Your task to perform on an android device: turn on translation in the chrome app Image 0: 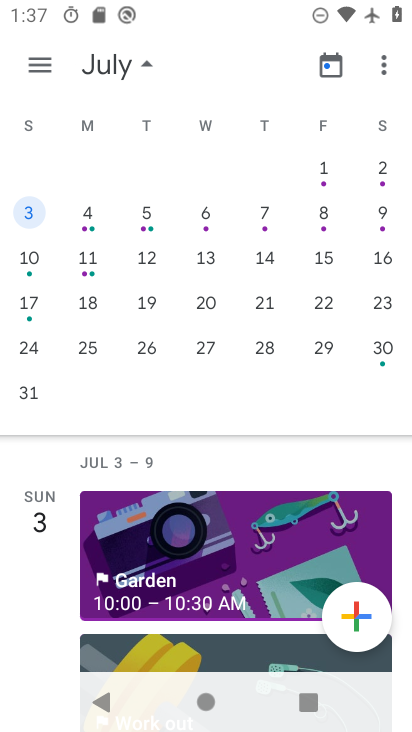
Step 0: press home button
Your task to perform on an android device: turn on translation in the chrome app Image 1: 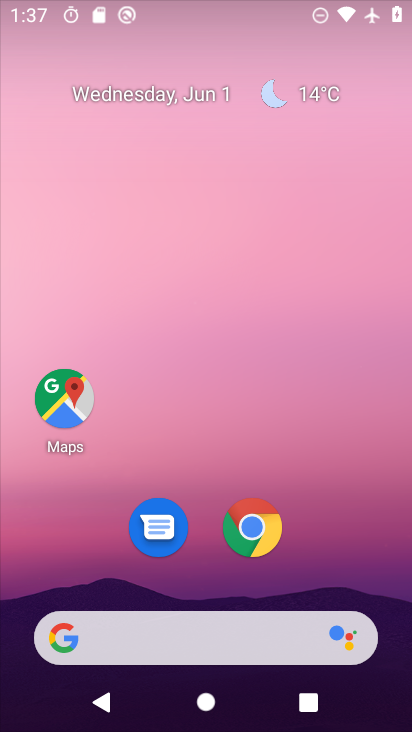
Step 1: drag from (200, 570) to (276, 59)
Your task to perform on an android device: turn on translation in the chrome app Image 2: 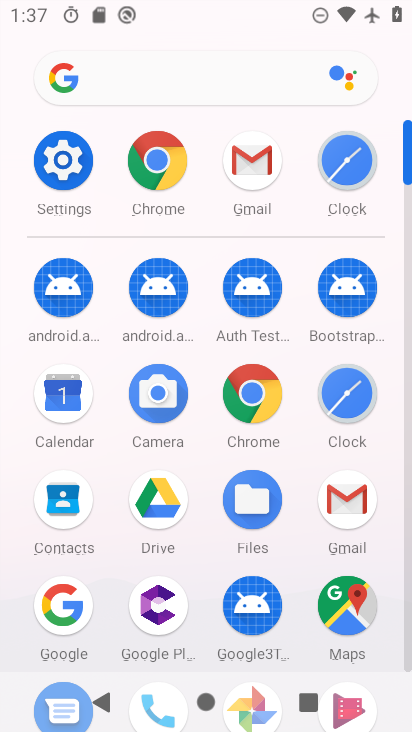
Step 2: click (262, 410)
Your task to perform on an android device: turn on translation in the chrome app Image 3: 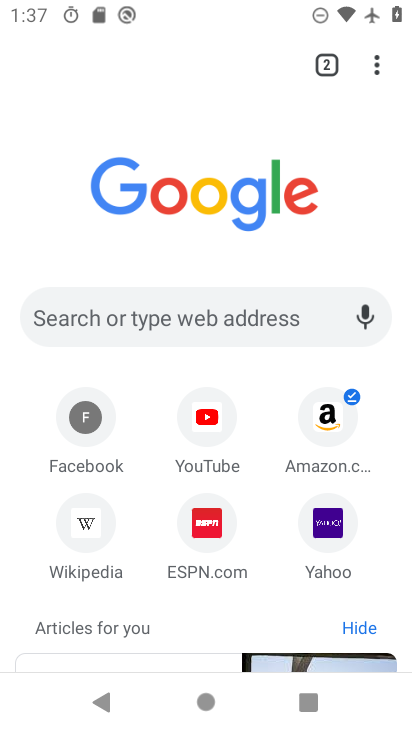
Step 3: click (382, 62)
Your task to perform on an android device: turn on translation in the chrome app Image 4: 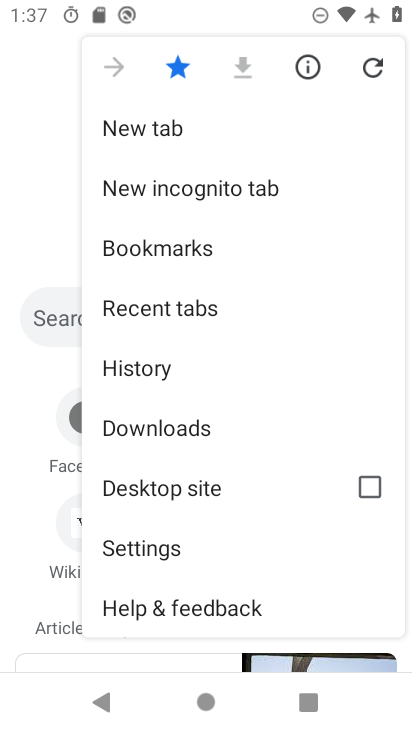
Step 4: task complete